Your task to perform on an android device: How do I get to the nearest grocery store? Image 0: 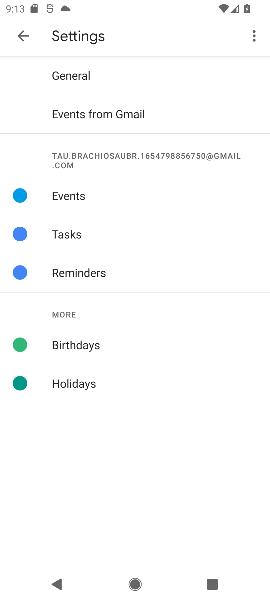
Step 0: press home button
Your task to perform on an android device: How do I get to the nearest grocery store? Image 1: 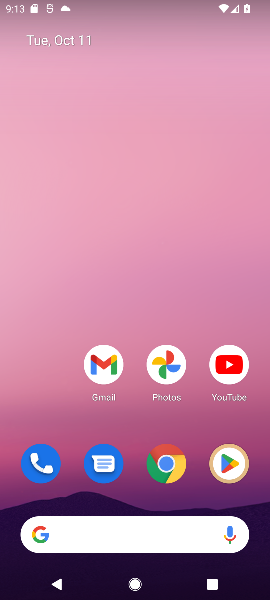
Step 1: drag from (126, 501) to (142, 117)
Your task to perform on an android device: How do I get to the nearest grocery store? Image 2: 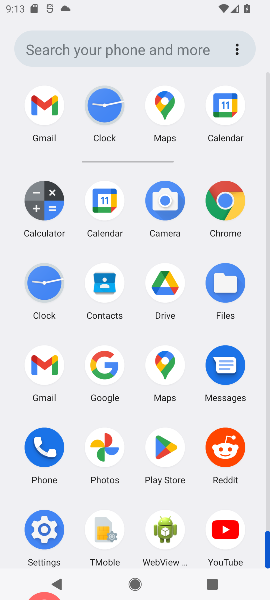
Step 2: click (99, 358)
Your task to perform on an android device: How do I get to the nearest grocery store? Image 3: 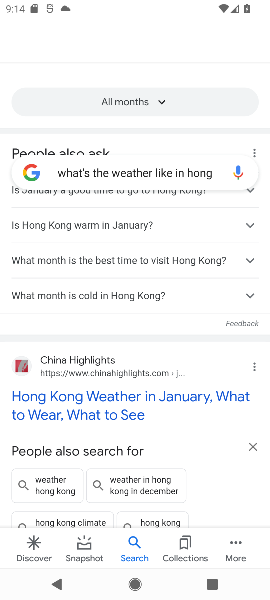
Step 3: click (140, 169)
Your task to perform on an android device: How do I get to the nearest grocery store? Image 4: 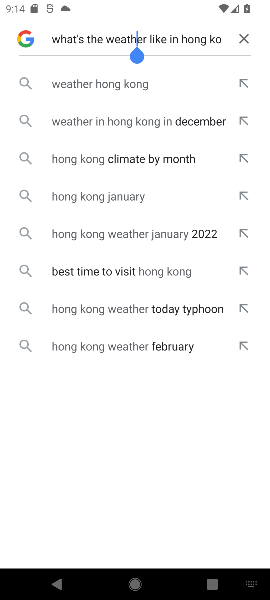
Step 4: click (239, 29)
Your task to perform on an android device: How do I get to the nearest grocery store? Image 5: 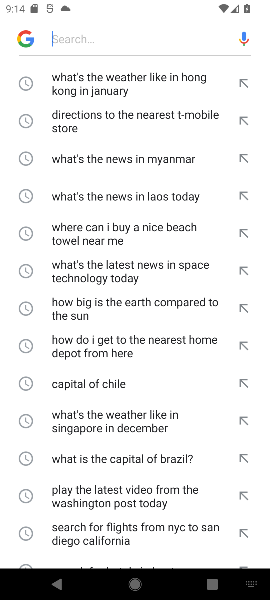
Step 5: click (115, 32)
Your task to perform on an android device: How do I get to the nearest grocery store? Image 6: 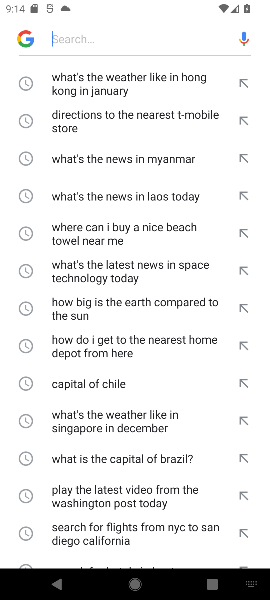
Step 6: type "How do I get to the nearest grocery store? "
Your task to perform on an android device: How do I get to the nearest grocery store? Image 7: 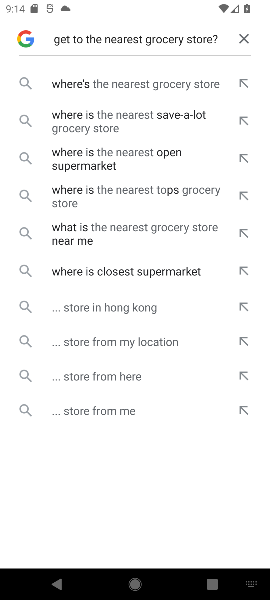
Step 7: click (152, 87)
Your task to perform on an android device: How do I get to the nearest grocery store? Image 8: 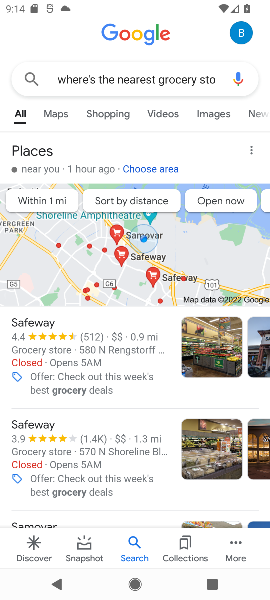
Step 8: drag from (108, 492) to (148, 210)
Your task to perform on an android device: How do I get to the nearest grocery store? Image 9: 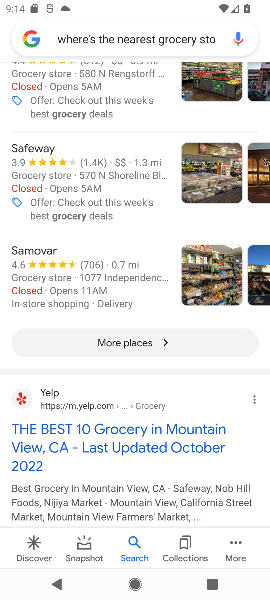
Step 9: drag from (107, 482) to (134, 216)
Your task to perform on an android device: How do I get to the nearest grocery store? Image 10: 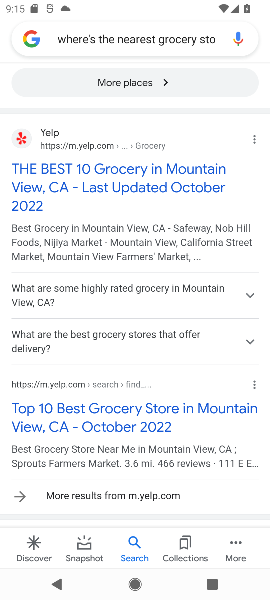
Step 10: click (112, 169)
Your task to perform on an android device: How do I get to the nearest grocery store? Image 11: 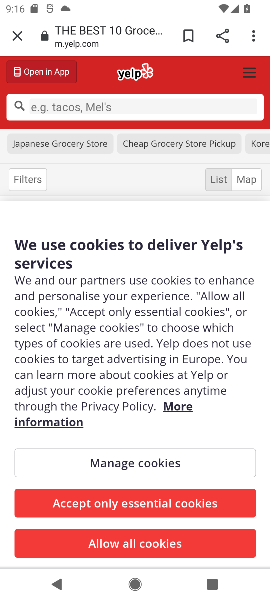
Step 11: click (163, 545)
Your task to perform on an android device: How do I get to the nearest grocery store? Image 12: 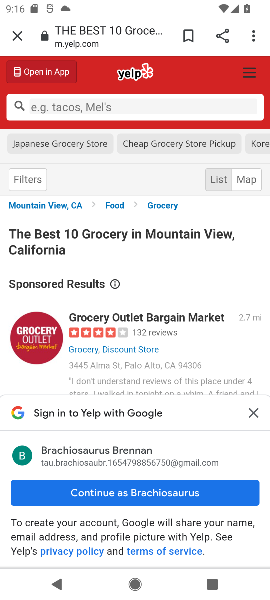
Step 12: click (256, 415)
Your task to perform on an android device: How do I get to the nearest grocery store? Image 13: 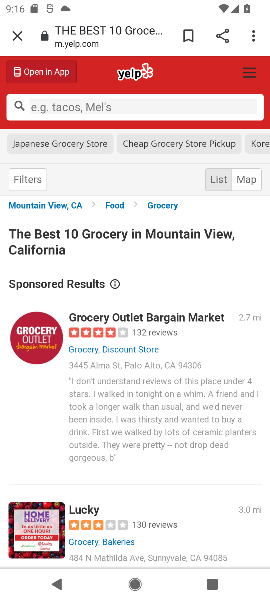
Step 13: task complete